Your task to perform on an android device: toggle wifi Image 0: 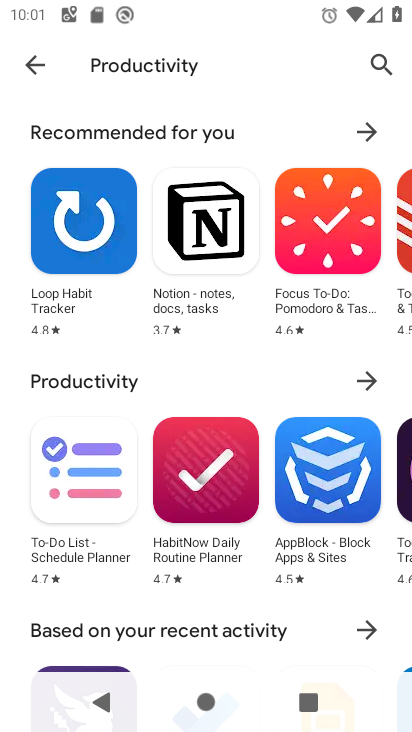
Step 0: press home button
Your task to perform on an android device: toggle wifi Image 1: 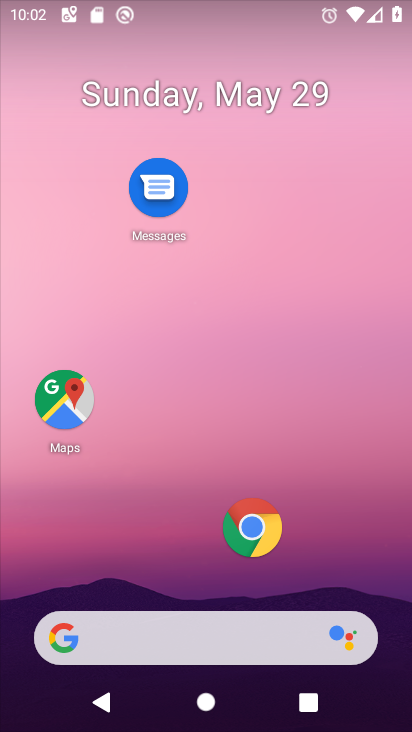
Step 1: drag from (208, 574) to (224, 72)
Your task to perform on an android device: toggle wifi Image 2: 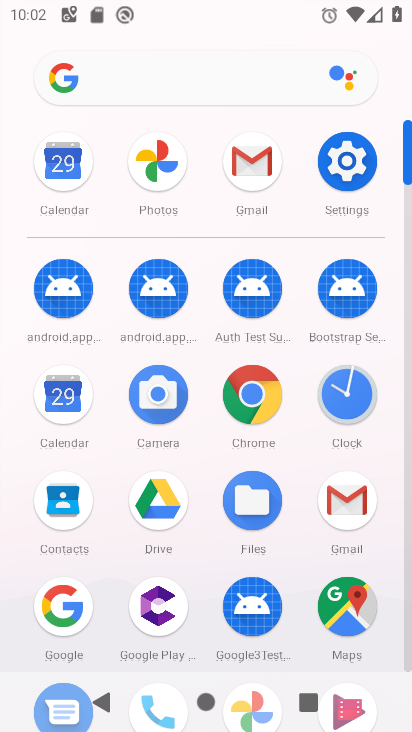
Step 2: click (341, 157)
Your task to perform on an android device: toggle wifi Image 3: 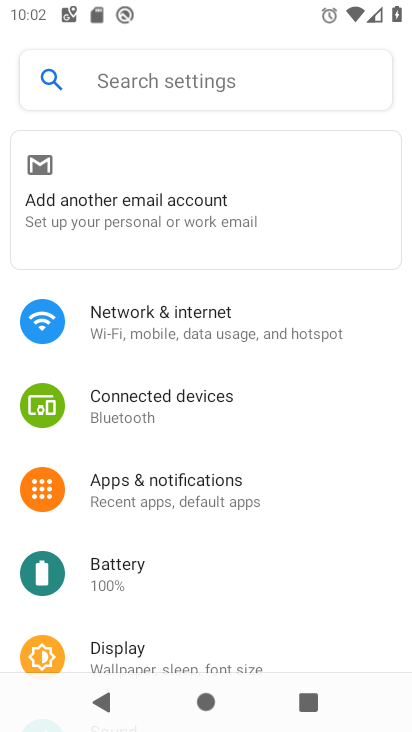
Step 3: click (229, 308)
Your task to perform on an android device: toggle wifi Image 4: 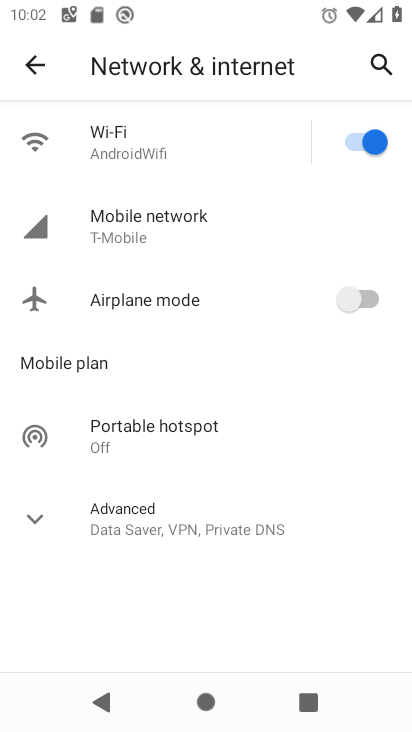
Step 4: click (356, 141)
Your task to perform on an android device: toggle wifi Image 5: 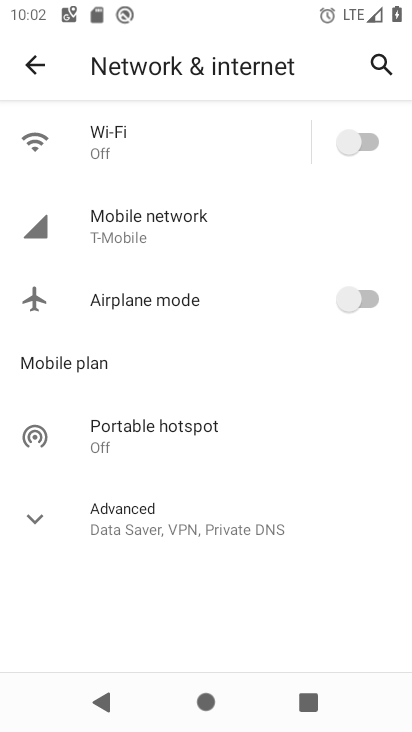
Step 5: task complete